Your task to perform on an android device: Open the web browser Image 0: 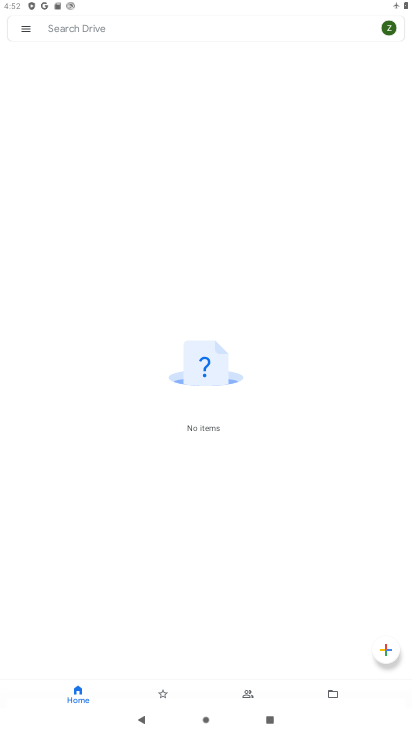
Step 0: press home button
Your task to perform on an android device: Open the web browser Image 1: 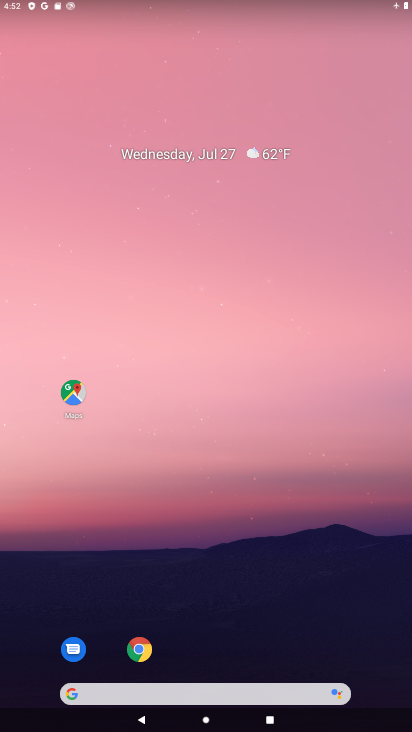
Step 1: drag from (209, 611) to (258, 276)
Your task to perform on an android device: Open the web browser Image 2: 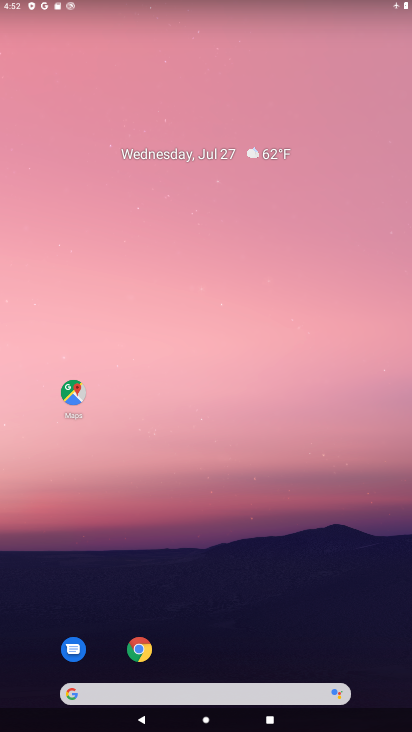
Step 2: click (141, 649)
Your task to perform on an android device: Open the web browser Image 3: 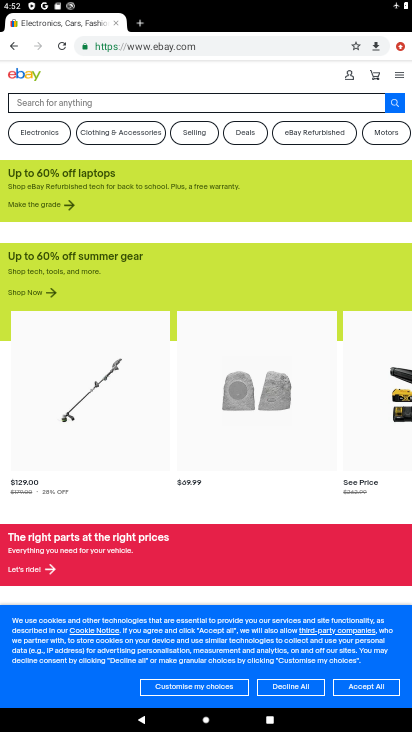
Step 3: task complete